Your task to perform on an android device: change text size in settings app Image 0: 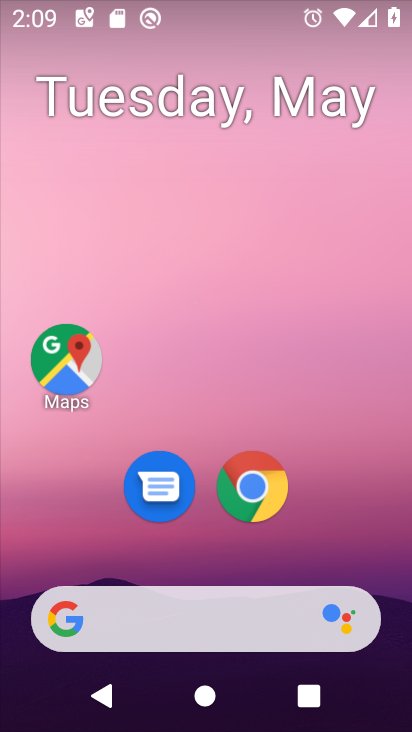
Step 0: drag from (34, 585) to (330, 98)
Your task to perform on an android device: change text size in settings app Image 1: 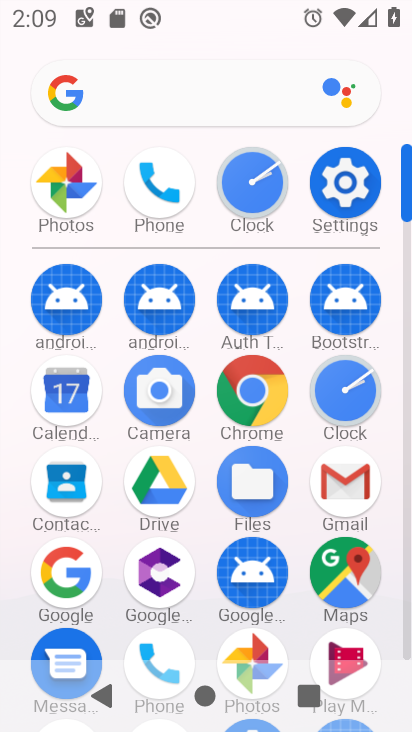
Step 1: click (344, 167)
Your task to perform on an android device: change text size in settings app Image 2: 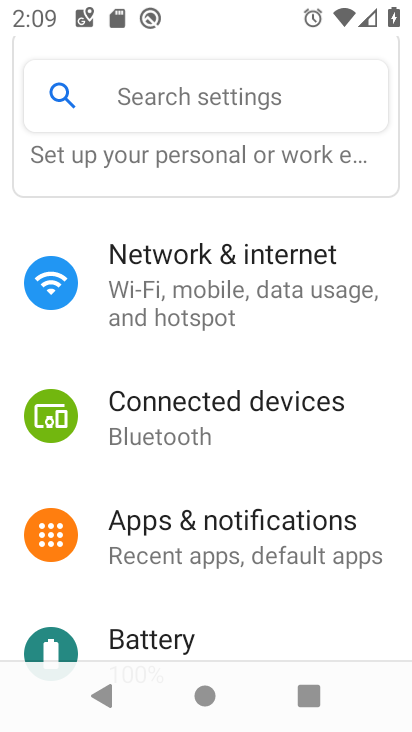
Step 2: drag from (1, 642) to (307, 157)
Your task to perform on an android device: change text size in settings app Image 3: 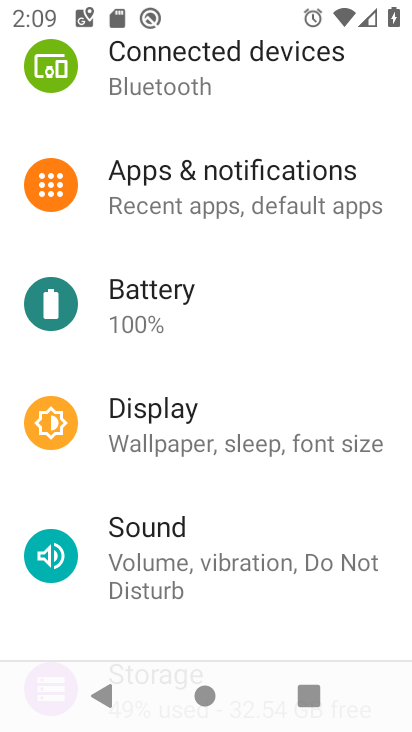
Step 3: drag from (29, 475) to (219, 139)
Your task to perform on an android device: change text size in settings app Image 4: 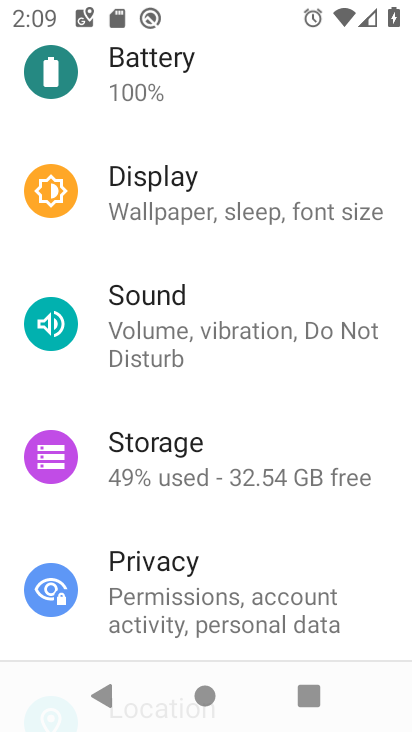
Step 4: drag from (33, 472) to (175, 217)
Your task to perform on an android device: change text size in settings app Image 5: 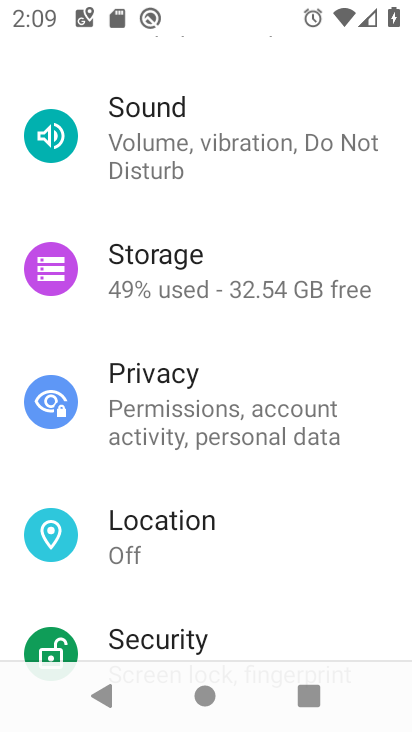
Step 5: drag from (195, 93) to (189, 665)
Your task to perform on an android device: change text size in settings app Image 6: 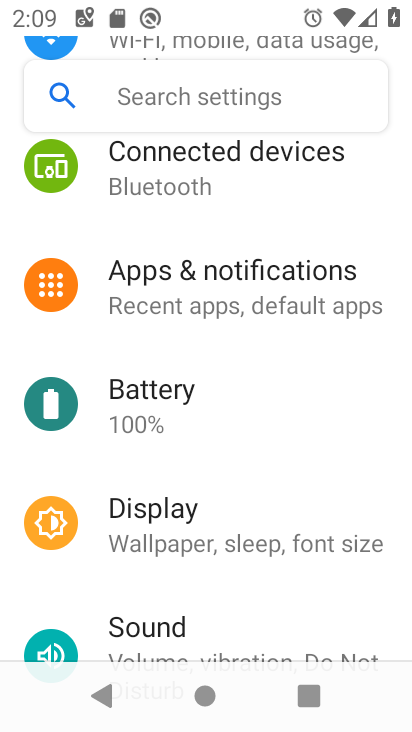
Step 6: click (267, 535)
Your task to perform on an android device: change text size in settings app Image 7: 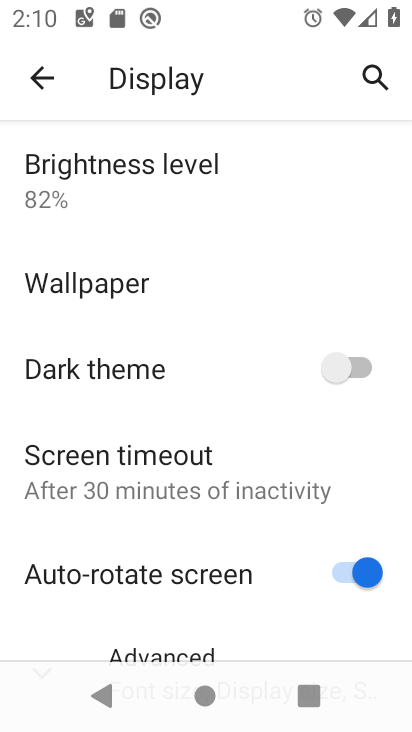
Step 7: drag from (17, 466) to (187, 157)
Your task to perform on an android device: change text size in settings app Image 8: 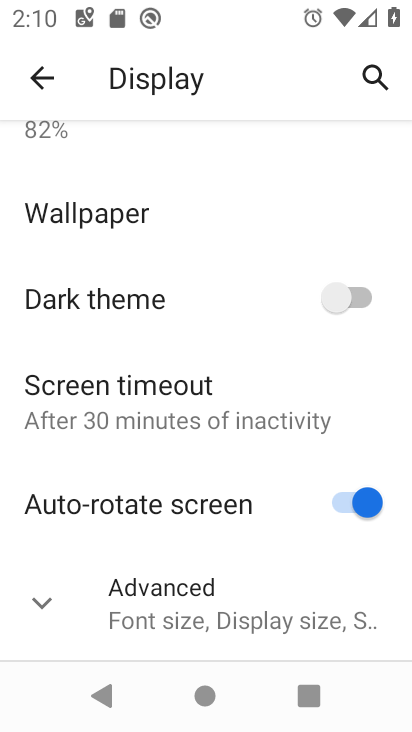
Step 8: click (246, 613)
Your task to perform on an android device: change text size in settings app Image 9: 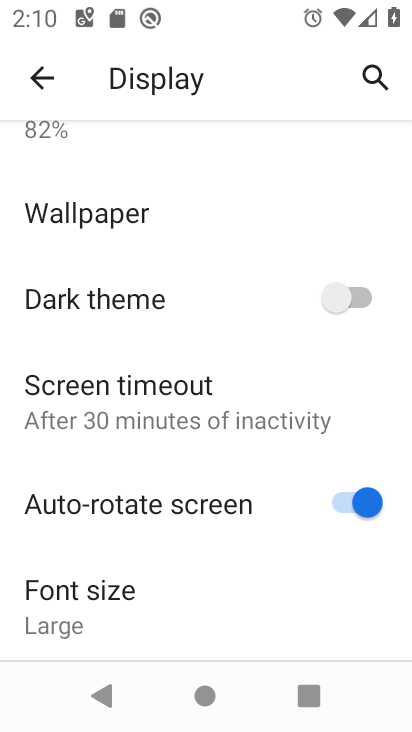
Step 9: drag from (57, 428) to (280, 145)
Your task to perform on an android device: change text size in settings app Image 10: 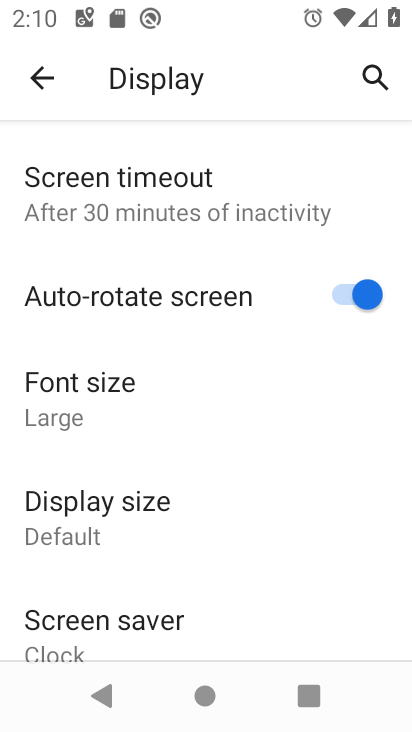
Step 10: click (101, 400)
Your task to perform on an android device: change text size in settings app Image 11: 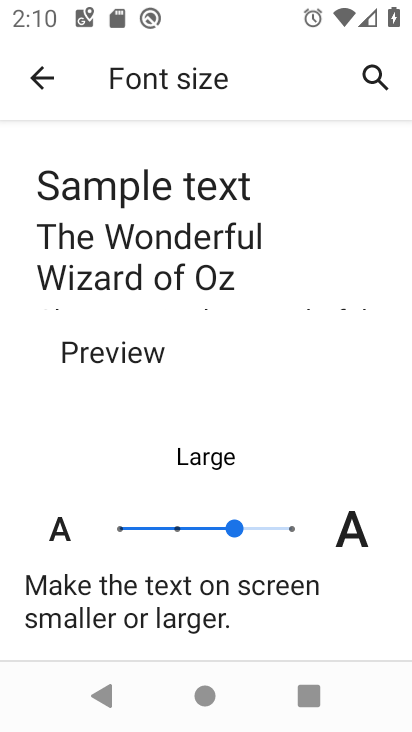
Step 11: task complete